Your task to perform on an android device: turn on data saver in the chrome app Image 0: 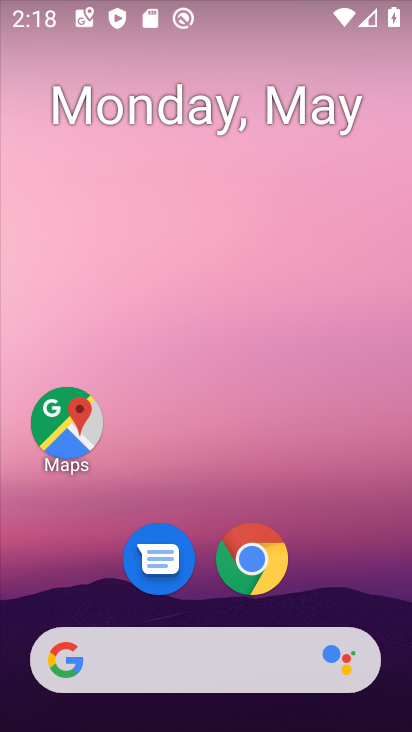
Step 0: click (274, 552)
Your task to perform on an android device: turn on data saver in the chrome app Image 1: 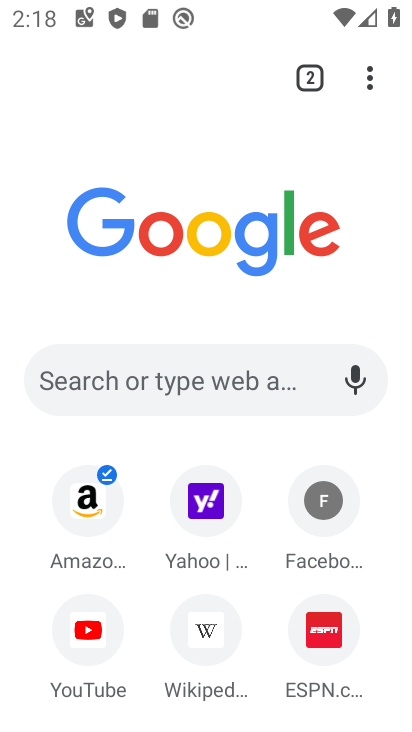
Step 1: click (375, 67)
Your task to perform on an android device: turn on data saver in the chrome app Image 2: 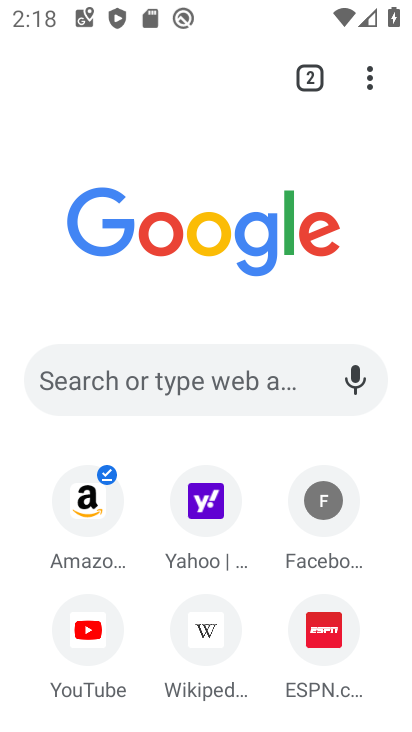
Step 2: click (367, 84)
Your task to perform on an android device: turn on data saver in the chrome app Image 3: 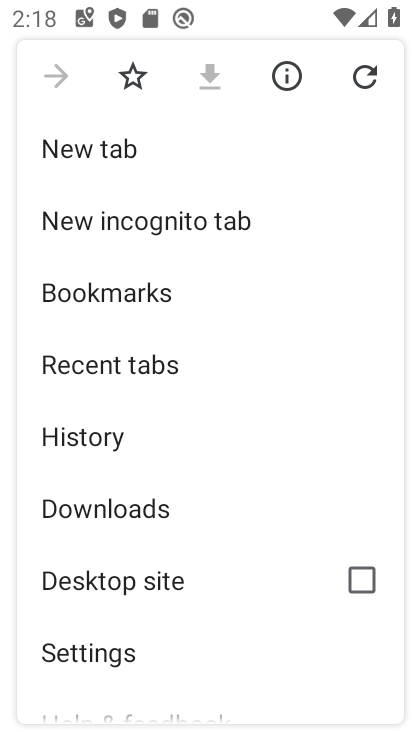
Step 3: click (126, 662)
Your task to perform on an android device: turn on data saver in the chrome app Image 4: 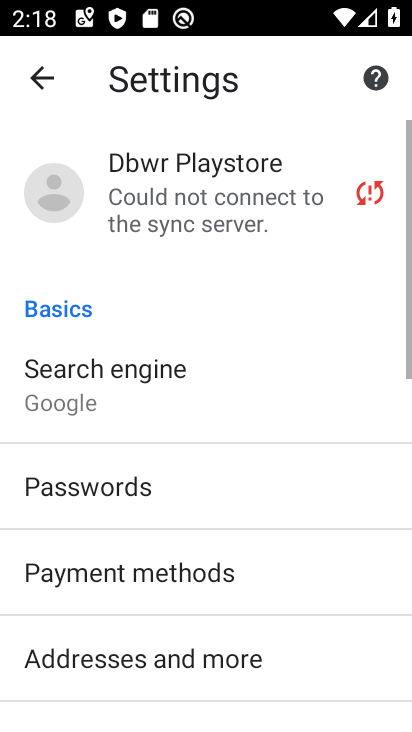
Step 4: drag from (289, 641) to (243, 16)
Your task to perform on an android device: turn on data saver in the chrome app Image 5: 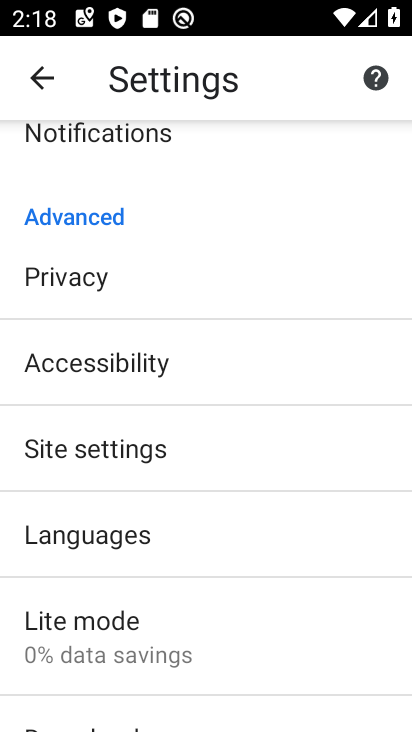
Step 5: drag from (213, 613) to (278, 37)
Your task to perform on an android device: turn on data saver in the chrome app Image 6: 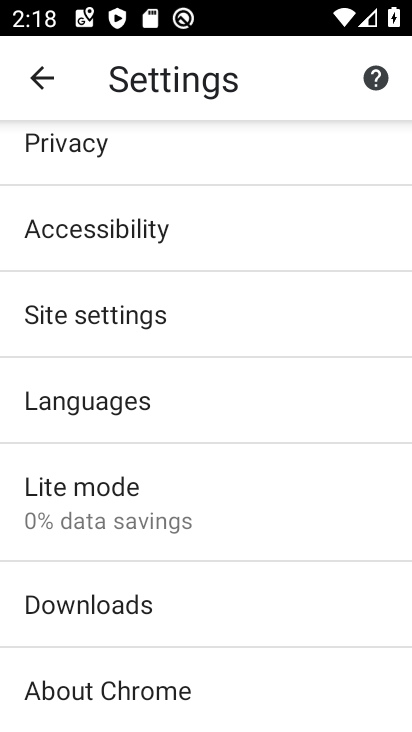
Step 6: click (166, 485)
Your task to perform on an android device: turn on data saver in the chrome app Image 7: 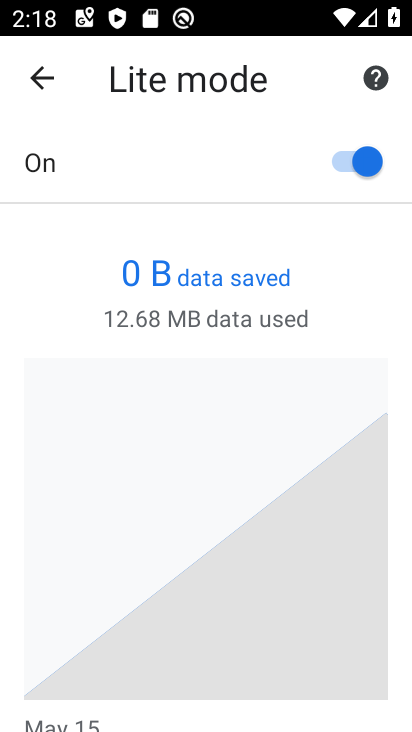
Step 7: click (374, 161)
Your task to perform on an android device: turn on data saver in the chrome app Image 8: 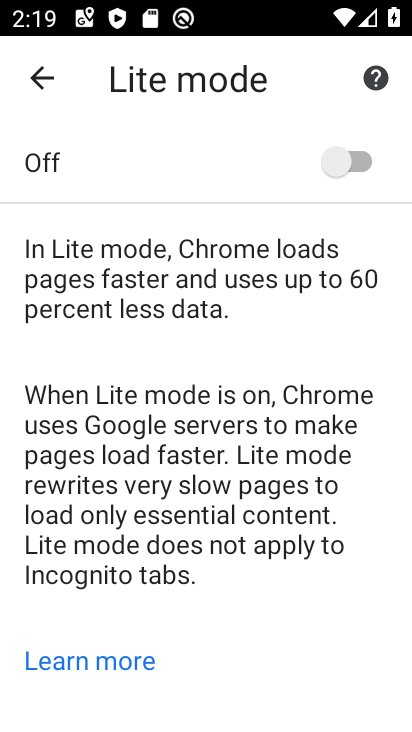
Step 8: click (374, 161)
Your task to perform on an android device: turn on data saver in the chrome app Image 9: 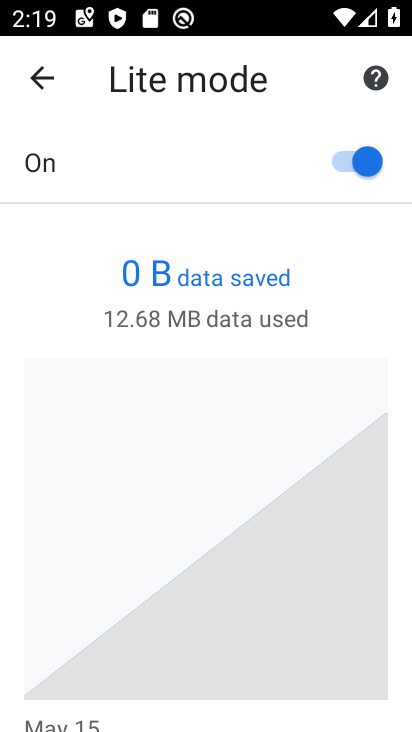
Step 9: task complete